Your task to perform on an android device: What's on my calendar tomorrow? Image 0: 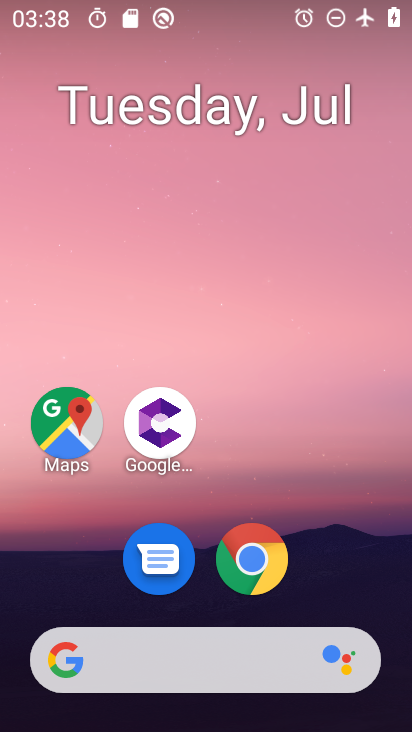
Step 0: drag from (330, 536) to (361, 138)
Your task to perform on an android device: What's on my calendar tomorrow? Image 1: 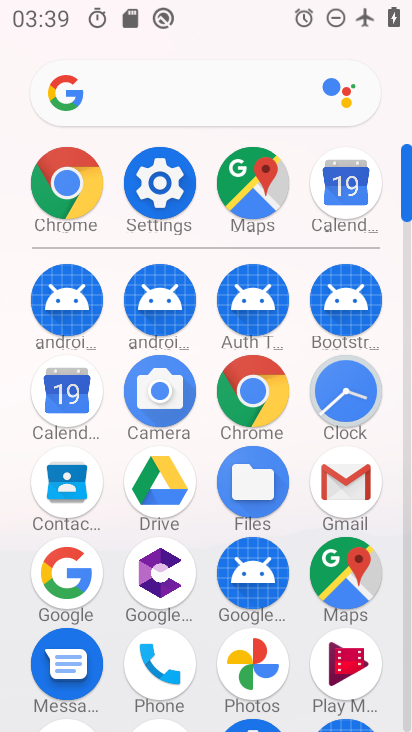
Step 1: click (343, 201)
Your task to perform on an android device: What's on my calendar tomorrow? Image 2: 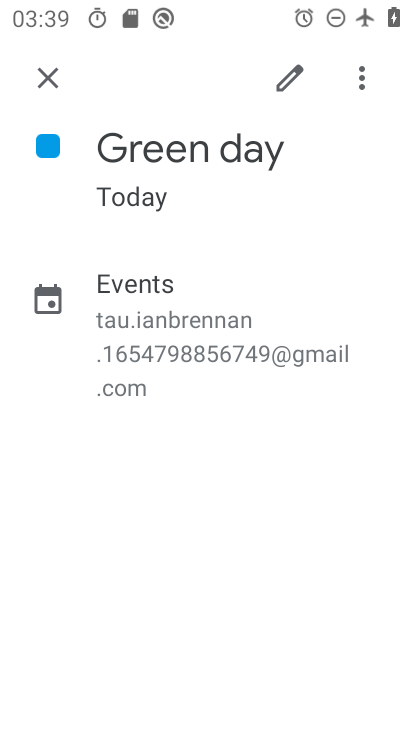
Step 2: press back button
Your task to perform on an android device: What's on my calendar tomorrow? Image 3: 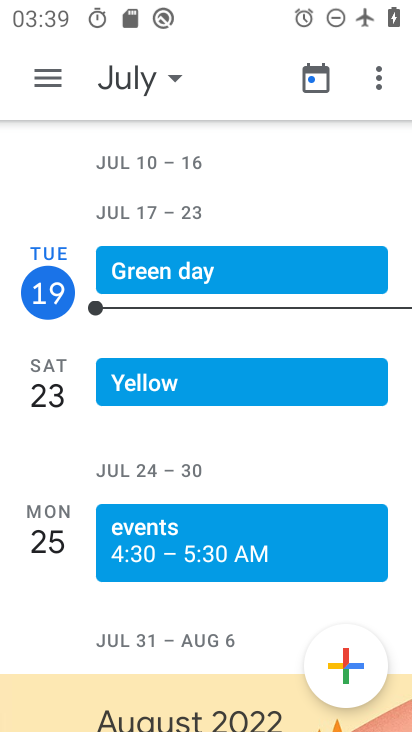
Step 3: click (177, 81)
Your task to perform on an android device: What's on my calendar tomorrow? Image 4: 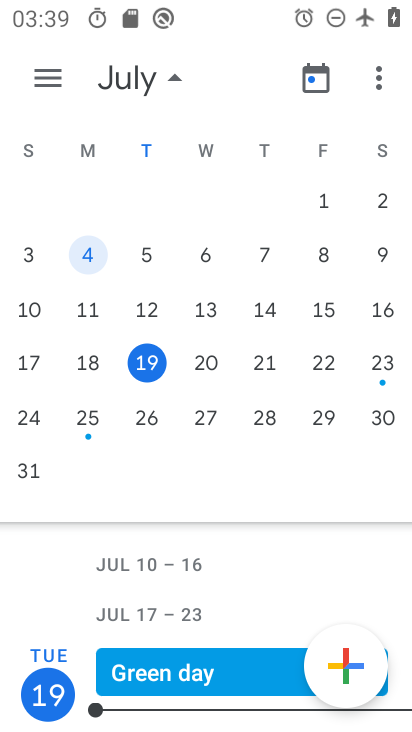
Step 4: click (208, 373)
Your task to perform on an android device: What's on my calendar tomorrow? Image 5: 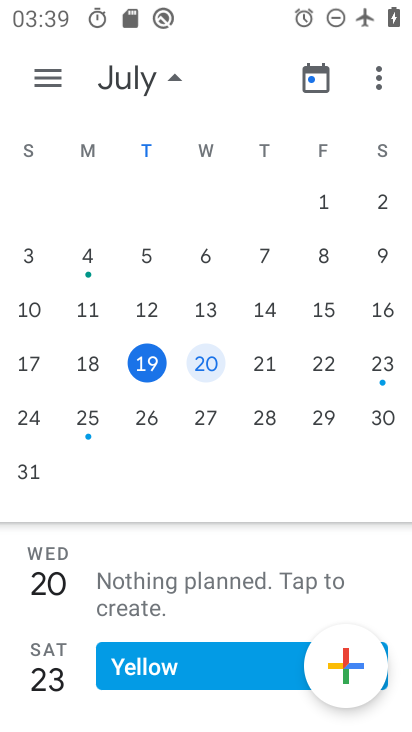
Step 5: task complete